Your task to perform on an android device: What's the weather going to be tomorrow? Image 0: 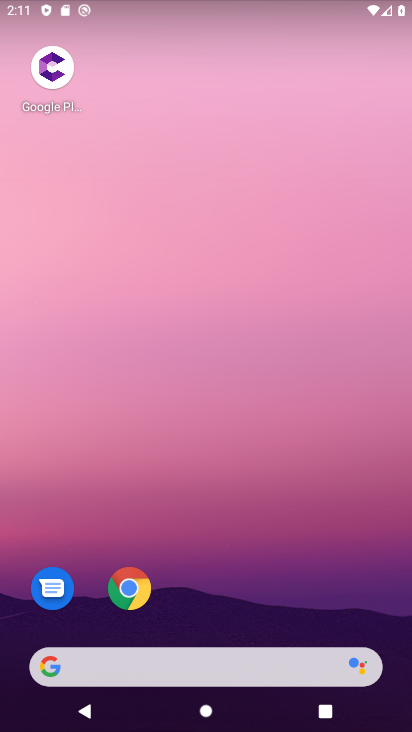
Step 0: click (186, 656)
Your task to perform on an android device: What's the weather going to be tomorrow? Image 1: 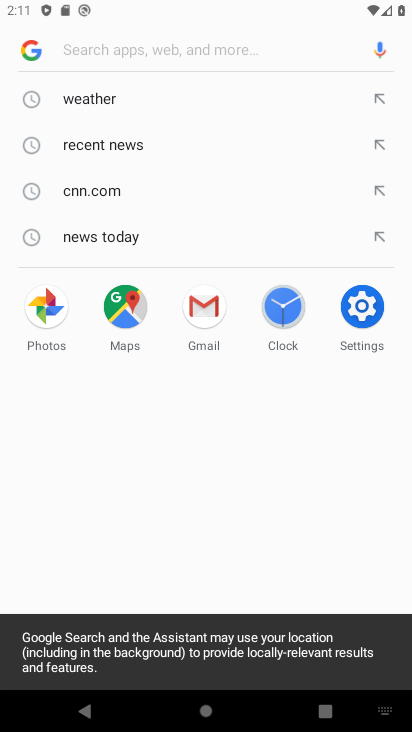
Step 1: click (90, 104)
Your task to perform on an android device: What's the weather going to be tomorrow? Image 2: 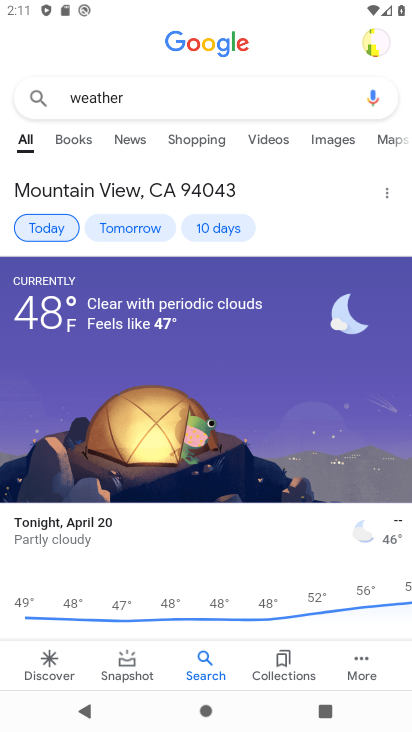
Step 2: click (136, 225)
Your task to perform on an android device: What's the weather going to be tomorrow? Image 3: 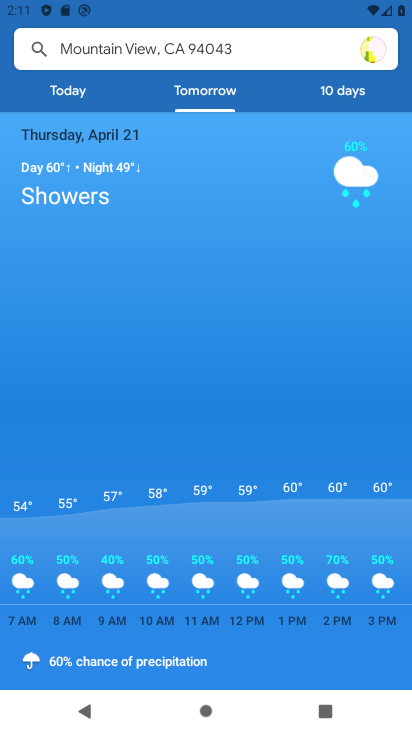
Step 3: task complete